Your task to perform on an android device: Open battery settings Image 0: 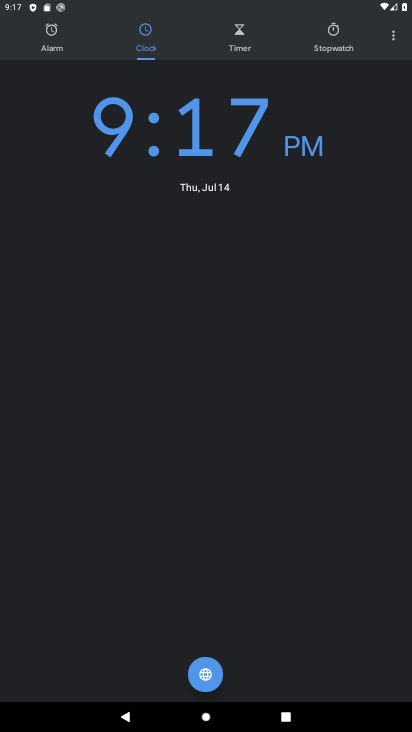
Step 0: press home button
Your task to perform on an android device: Open battery settings Image 1: 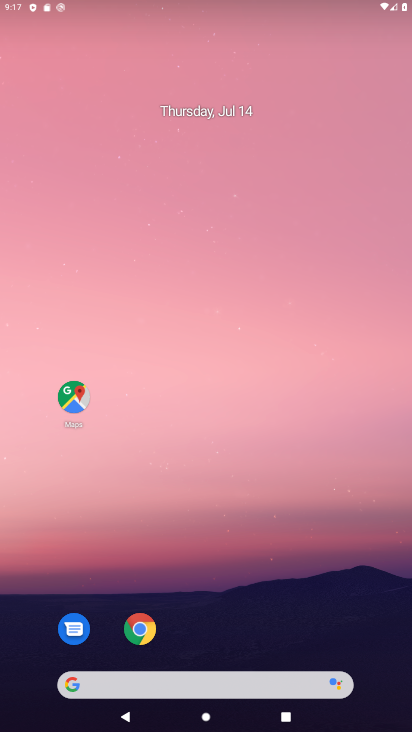
Step 1: drag from (231, 652) to (271, 122)
Your task to perform on an android device: Open battery settings Image 2: 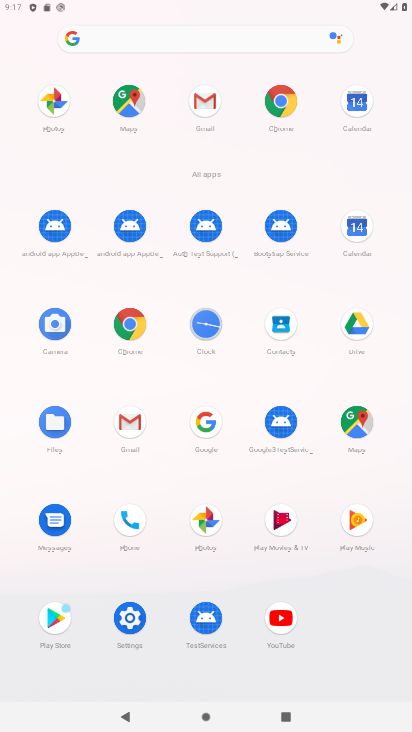
Step 2: click (135, 622)
Your task to perform on an android device: Open battery settings Image 3: 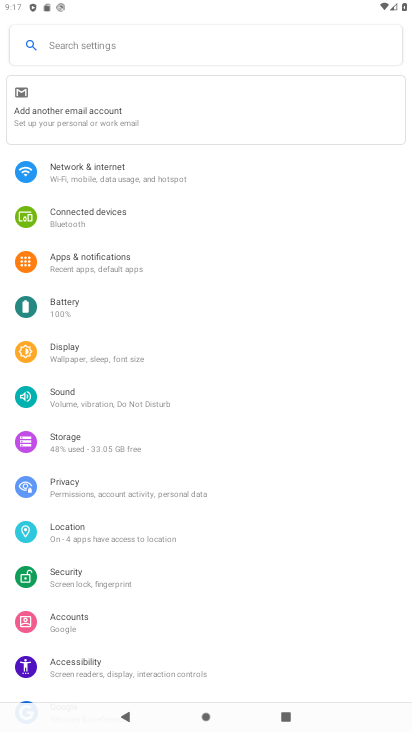
Step 3: drag from (117, 582) to (183, 354)
Your task to perform on an android device: Open battery settings Image 4: 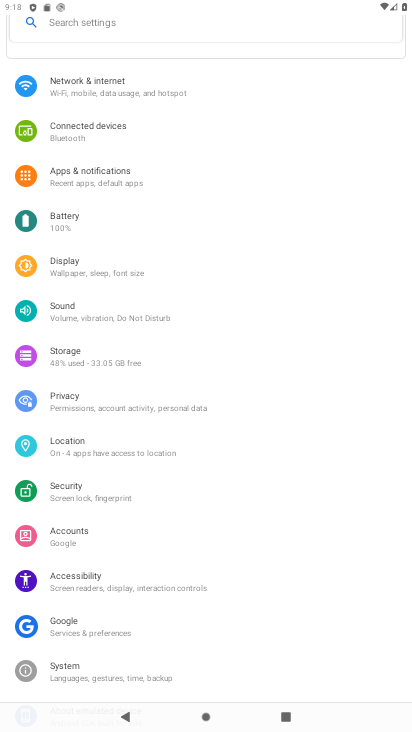
Step 4: drag from (156, 238) to (176, 495)
Your task to perform on an android device: Open battery settings Image 5: 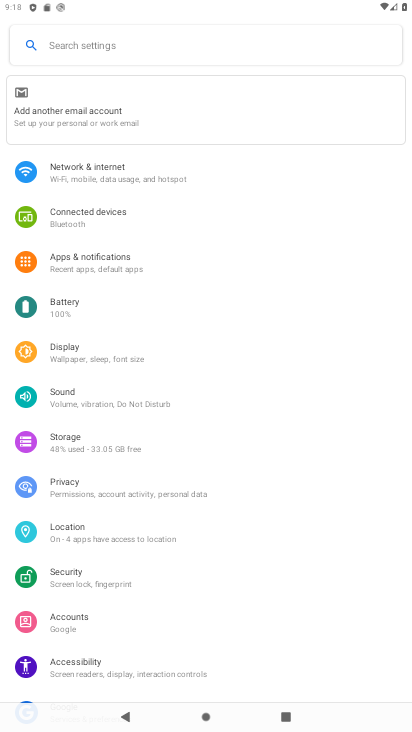
Step 5: click (93, 316)
Your task to perform on an android device: Open battery settings Image 6: 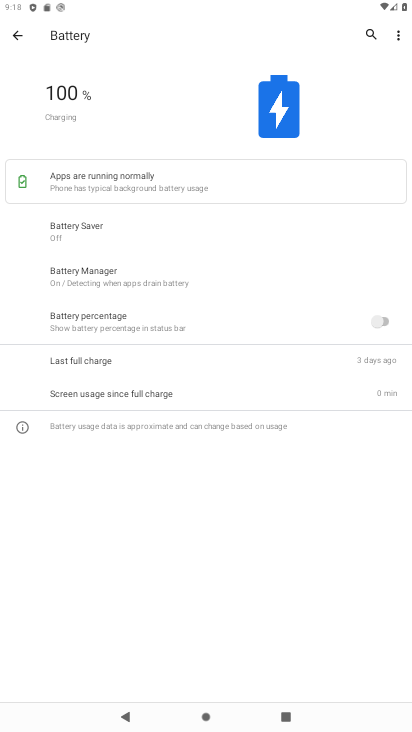
Step 6: task complete